Your task to perform on an android device: toggle priority inbox in the gmail app Image 0: 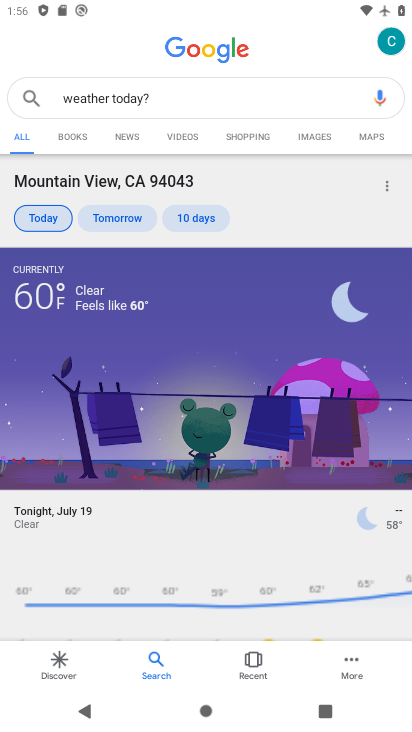
Step 0: press home button
Your task to perform on an android device: toggle priority inbox in the gmail app Image 1: 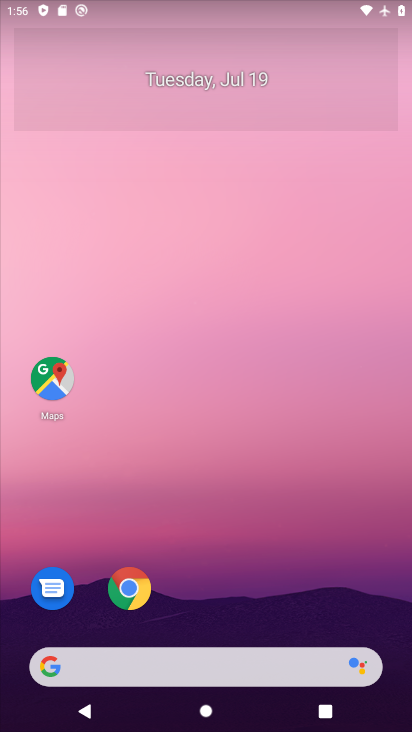
Step 1: drag from (231, 627) to (252, 12)
Your task to perform on an android device: toggle priority inbox in the gmail app Image 2: 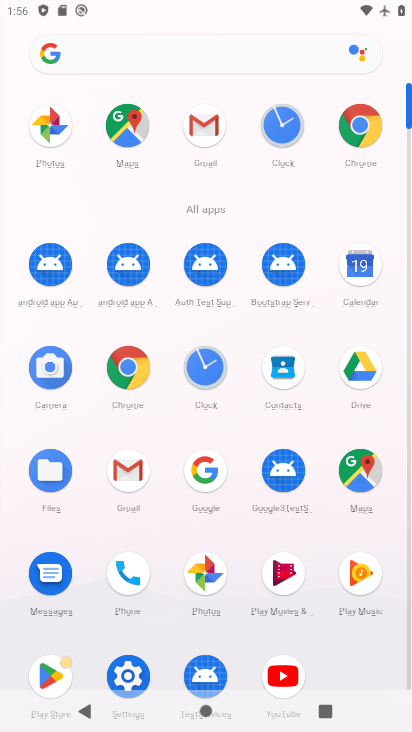
Step 2: click (205, 116)
Your task to perform on an android device: toggle priority inbox in the gmail app Image 3: 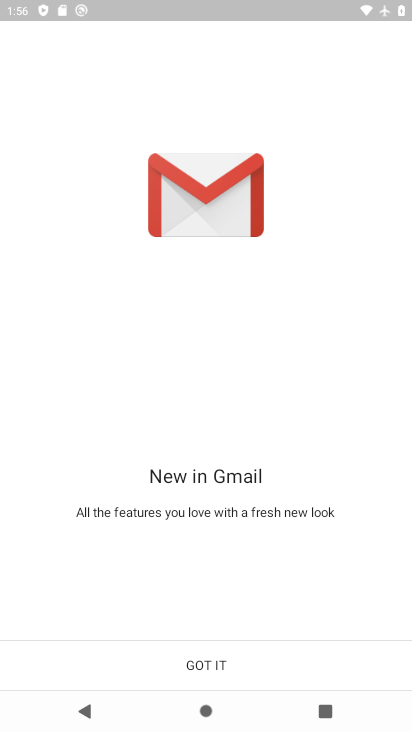
Step 3: click (186, 658)
Your task to perform on an android device: toggle priority inbox in the gmail app Image 4: 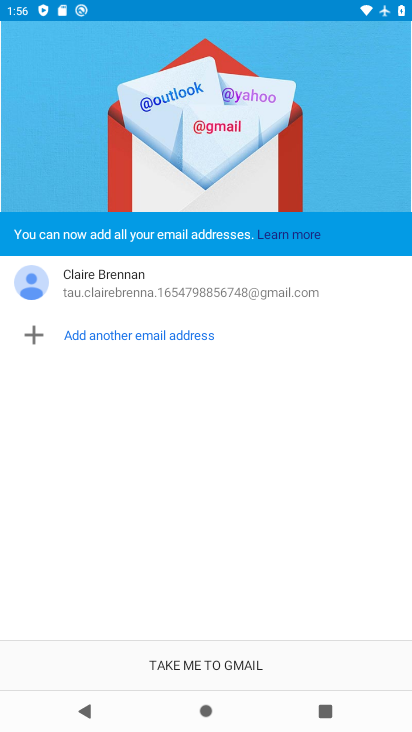
Step 4: click (193, 663)
Your task to perform on an android device: toggle priority inbox in the gmail app Image 5: 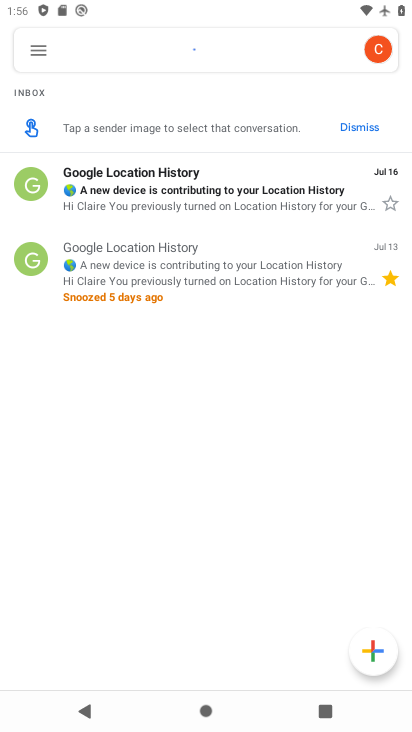
Step 5: click (30, 56)
Your task to perform on an android device: toggle priority inbox in the gmail app Image 6: 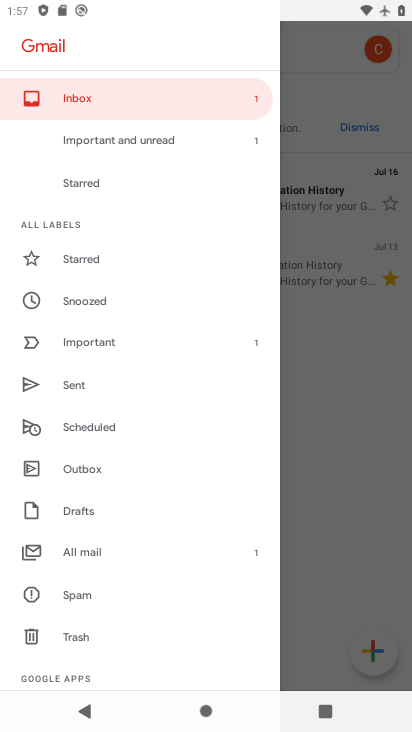
Step 6: drag from (191, 620) to (201, 131)
Your task to perform on an android device: toggle priority inbox in the gmail app Image 7: 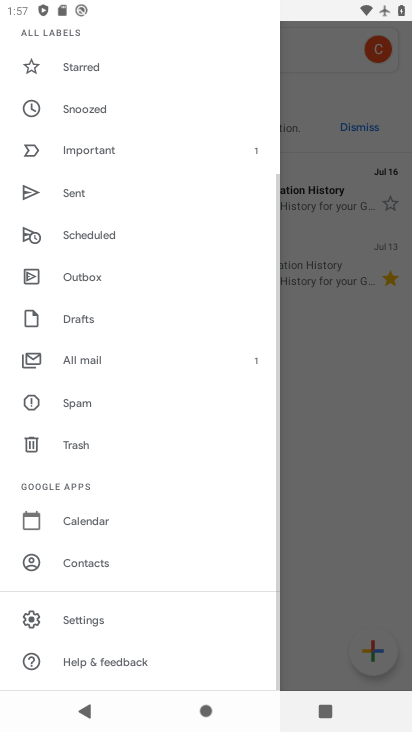
Step 7: click (93, 625)
Your task to perform on an android device: toggle priority inbox in the gmail app Image 8: 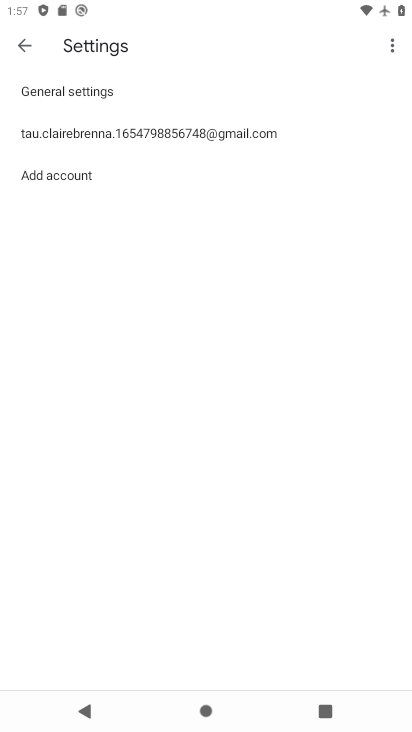
Step 8: click (89, 130)
Your task to perform on an android device: toggle priority inbox in the gmail app Image 9: 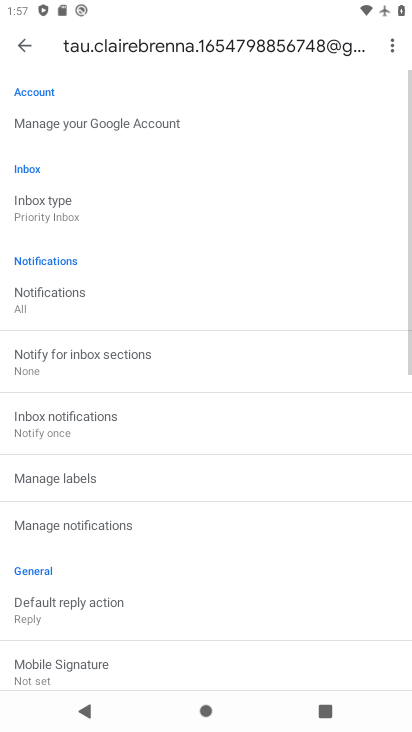
Step 9: click (43, 212)
Your task to perform on an android device: toggle priority inbox in the gmail app Image 10: 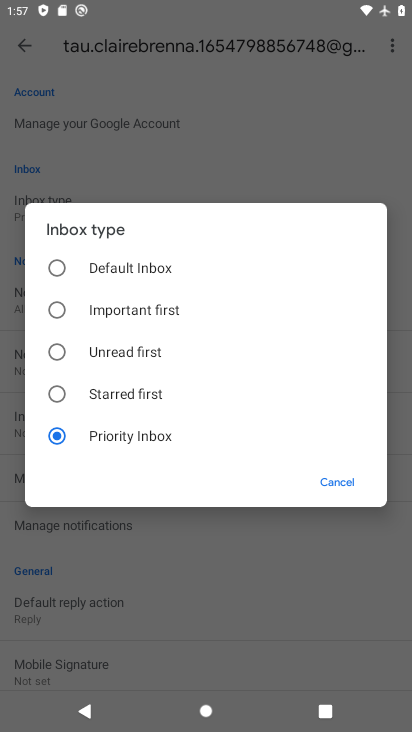
Step 10: click (57, 265)
Your task to perform on an android device: toggle priority inbox in the gmail app Image 11: 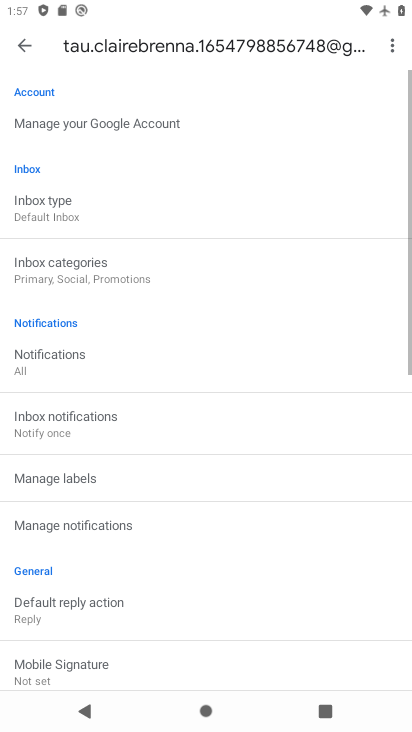
Step 11: task complete